Your task to perform on an android device: Go to Reddit.com Image 0: 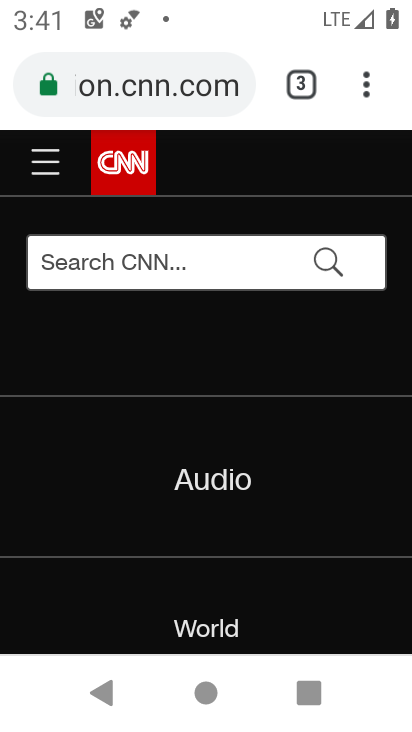
Step 0: press home button
Your task to perform on an android device: Go to Reddit.com Image 1: 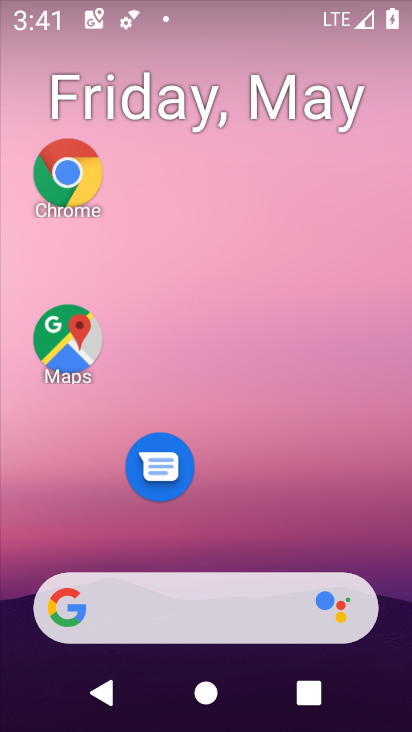
Step 1: click (212, 608)
Your task to perform on an android device: Go to Reddit.com Image 2: 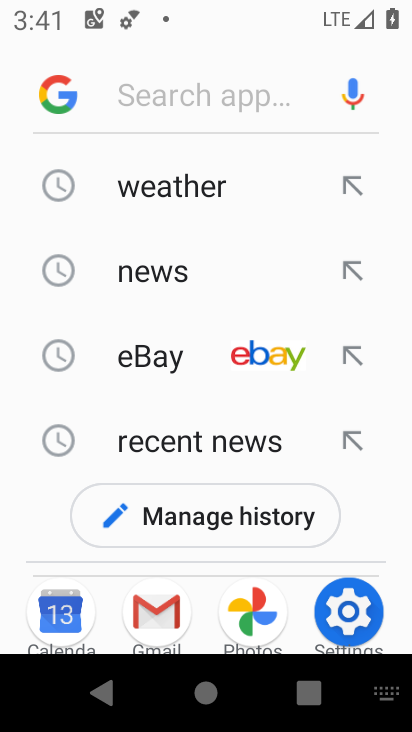
Step 2: type "Reddit.com"
Your task to perform on an android device: Go to Reddit.com Image 3: 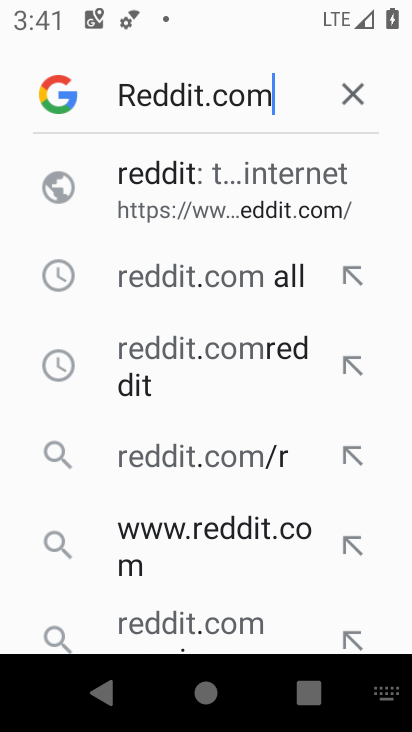
Step 3: click (196, 177)
Your task to perform on an android device: Go to Reddit.com Image 4: 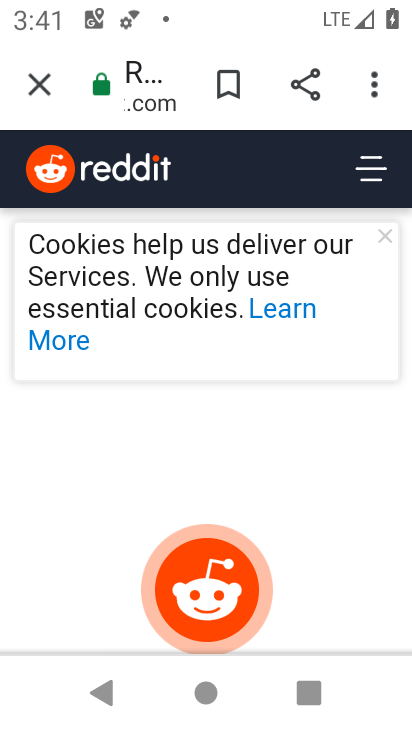
Step 4: task complete